Your task to perform on an android device: find snoozed emails in the gmail app Image 0: 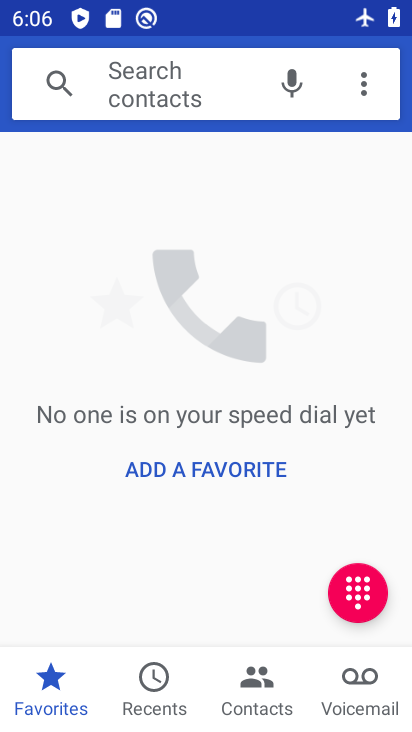
Step 0: press home button
Your task to perform on an android device: find snoozed emails in the gmail app Image 1: 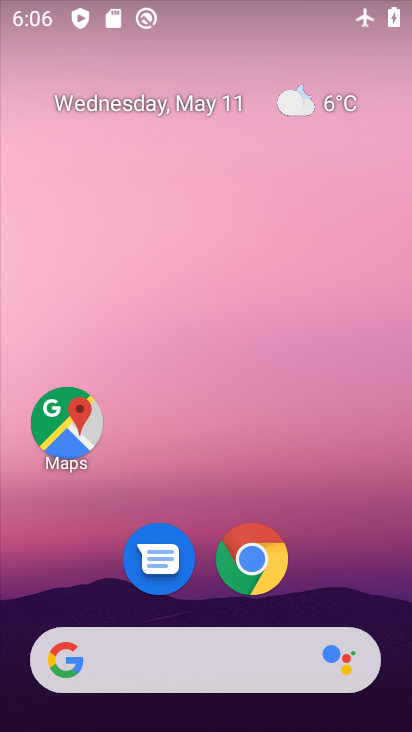
Step 1: drag from (355, 556) to (313, 183)
Your task to perform on an android device: find snoozed emails in the gmail app Image 2: 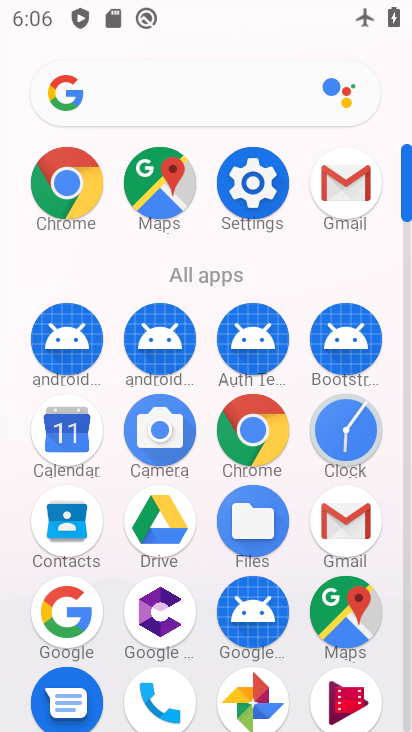
Step 2: click (351, 181)
Your task to perform on an android device: find snoozed emails in the gmail app Image 3: 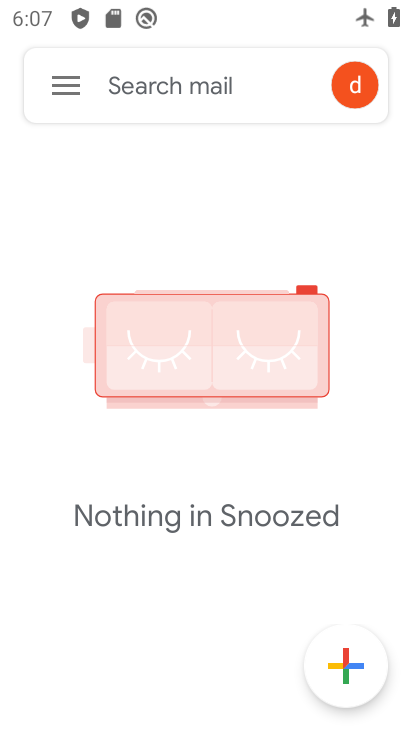
Step 3: click (68, 76)
Your task to perform on an android device: find snoozed emails in the gmail app Image 4: 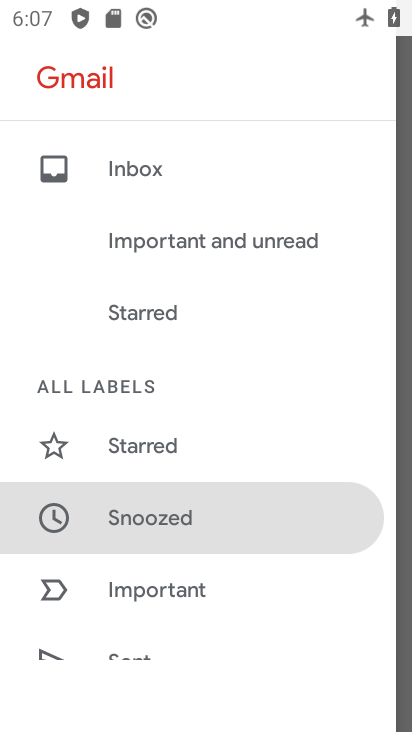
Step 4: task complete